Your task to perform on an android device: Add "usb-b" to the cart on bestbuy, then select checkout. Image 0: 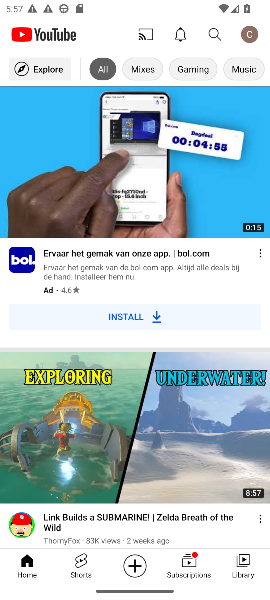
Step 0: press home button
Your task to perform on an android device: Add "usb-b" to the cart on bestbuy, then select checkout. Image 1: 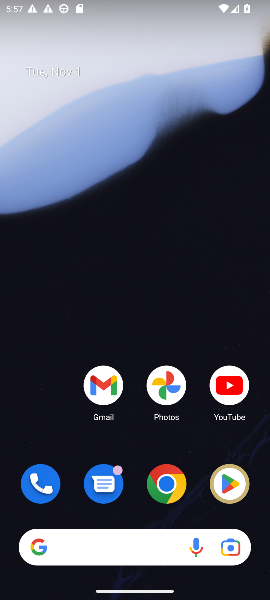
Step 1: click (164, 484)
Your task to perform on an android device: Add "usb-b" to the cart on bestbuy, then select checkout. Image 2: 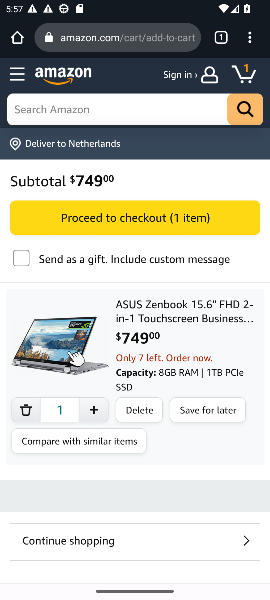
Step 2: click (148, 36)
Your task to perform on an android device: Add "usb-b" to the cart on bestbuy, then select checkout. Image 3: 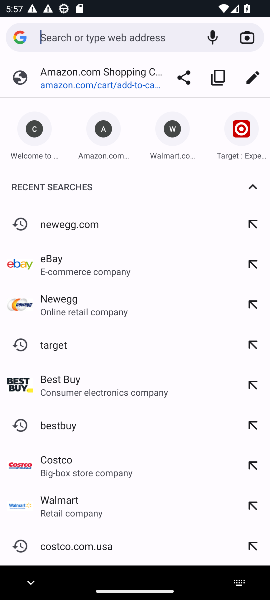
Step 3: type "bestbuy"
Your task to perform on an android device: Add "usb-b" to the cart on bestbuy, then select checkout. Image 4: 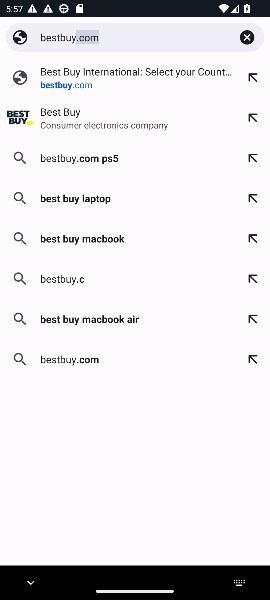
Step 4: click (90, 81)
Your task to perform on an android device: Add "usb-b" to the cart on bestbuy, then select checkout. Image 5: 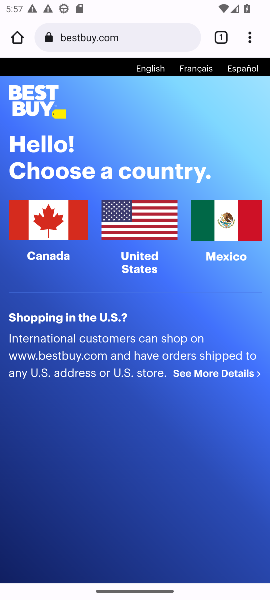
Step 5: click (124, 232)
Your task to perform on an android device: Add "usb-b" to the cart on bestbuy, then select checkout. Image 6: 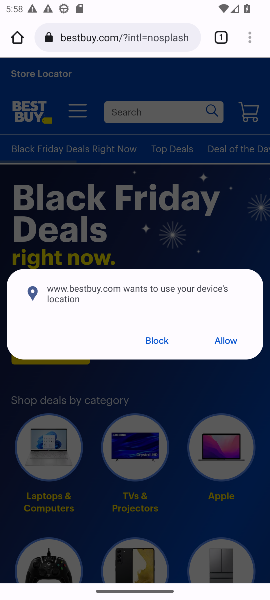
Step 6: click (227, 338)
Your task to perform on an android device: Add "usb-b" to the cart on bestbuy, then select checkout. Image 7: 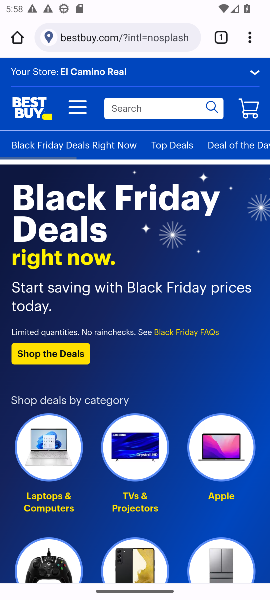
Step 7: click (146, 109)
Your task to perform on an android device: Add "usb-b" to the cart on bestbuy, then select checkout. Image 8: 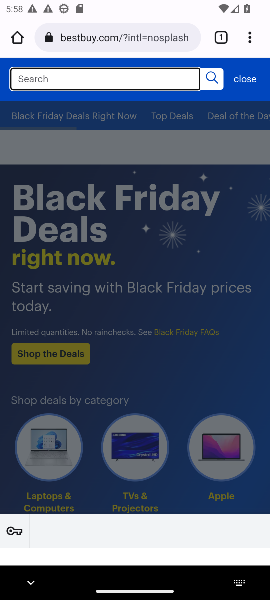
Step 8: type "USB-b"
Your task to perform on an android device: Add "usb-b" to the cart on bestbuy, then select checkout. Image 9: 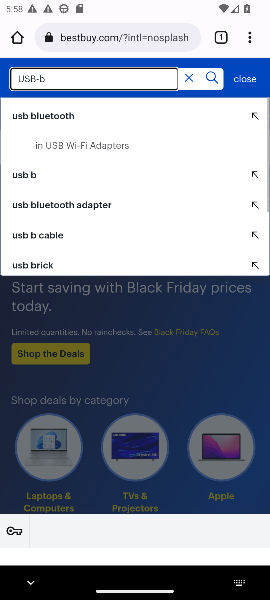
Step 9: click (31, 171)
Your task to perform on an android device: Add "usb-b" to the cart on bestbuy, then select checkout. Image 10: 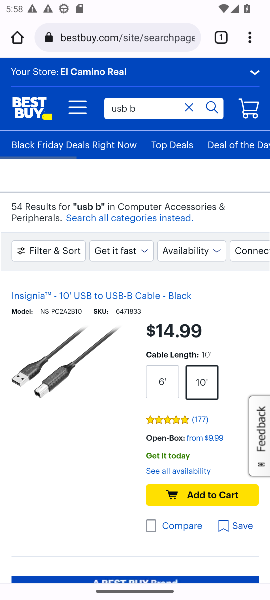
Step 10: click (214, 490)
Your task to perform on an android device: Add "usb-b" to the cart on bestbuy, then select checkout. Image 11: 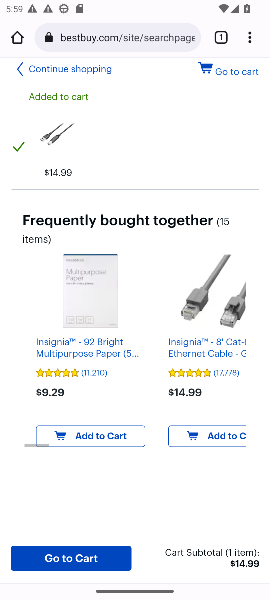
Step 11: click (99, 549)
Your task to perform on an android device: Add "usb-b" to the cart on bestbuy, then select checkout. Image 12: 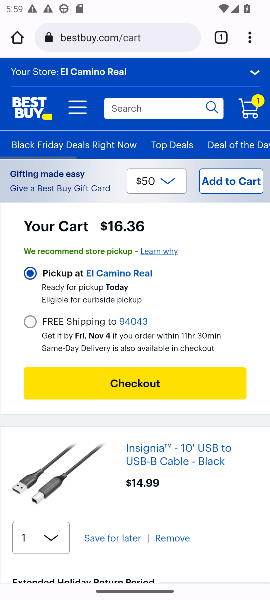
Step 12: click (159, 385)
Your task to perform on an android device: Add "usb-b" to the cart on bestbuy, then select checkout. Image 13: 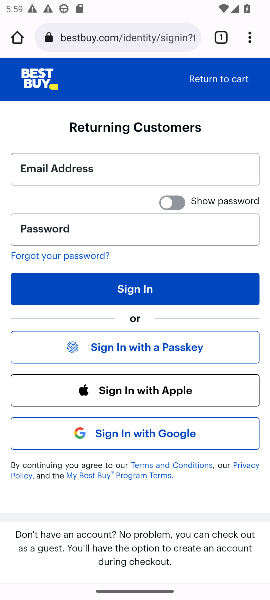
Step 13: task complete